Your task to perform on an android device: toggle translation in the chrome app Image 0: 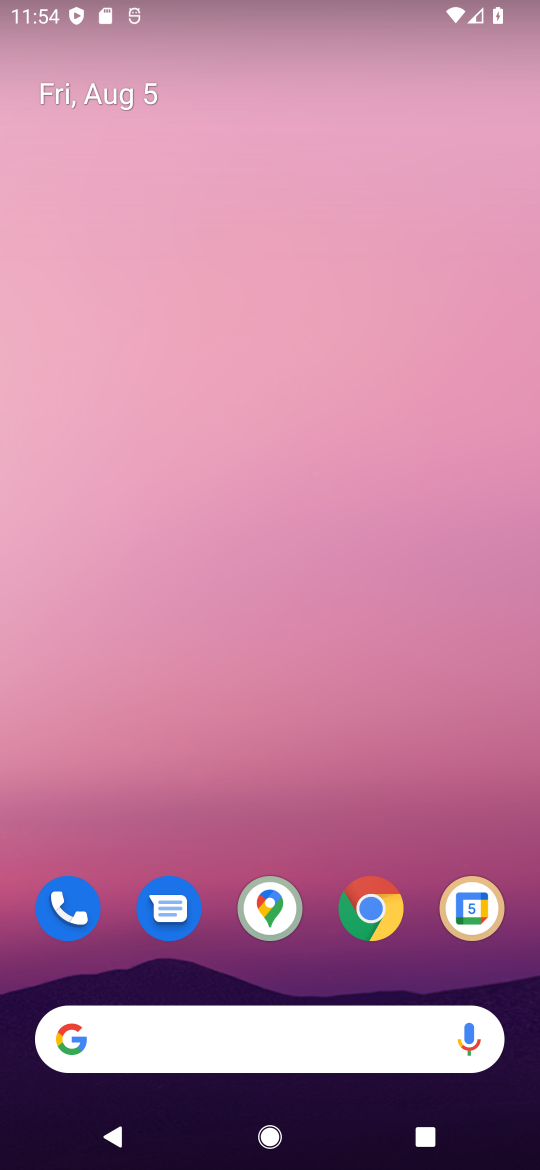
Step 0: drag from (427, 854) to (472, 297)
Your task to perform on an android device: toggle translation in the chrome app Image 1: 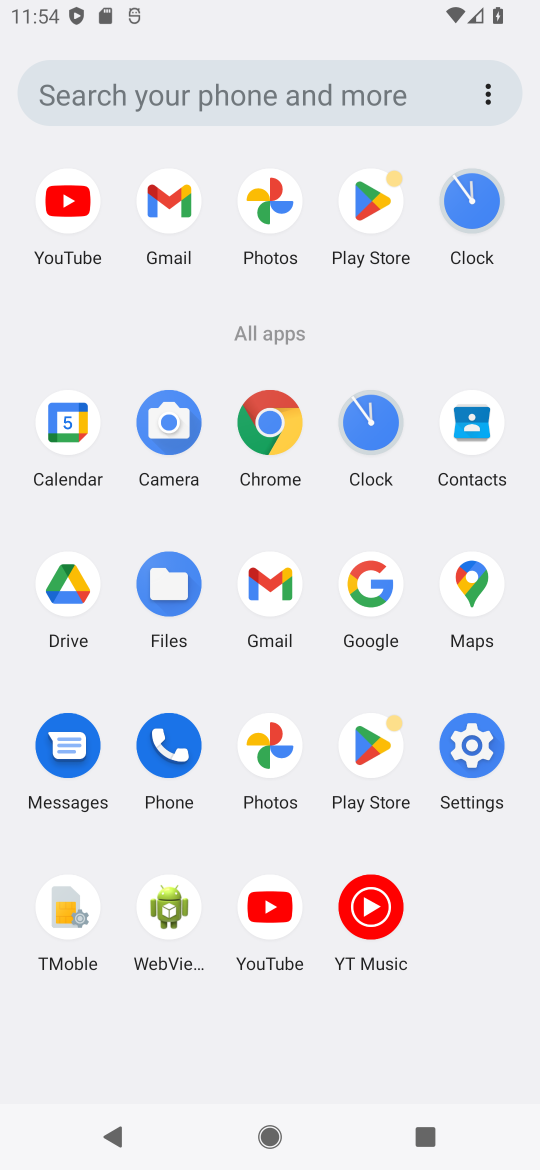
Step 1: click (284, 434)
Your task to perform on an android device: toggle translation in the chrome app Image 2: 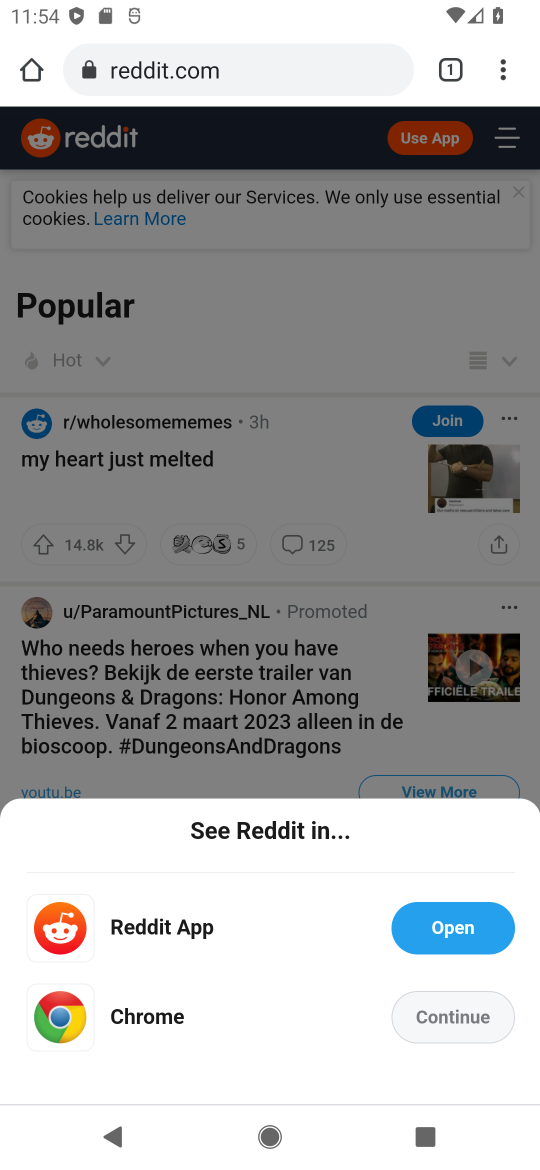
Step 2: drag from (499, 59) to (332, 801)
Your task to perform on an android device: toggle translation in the chrome app Image 3: 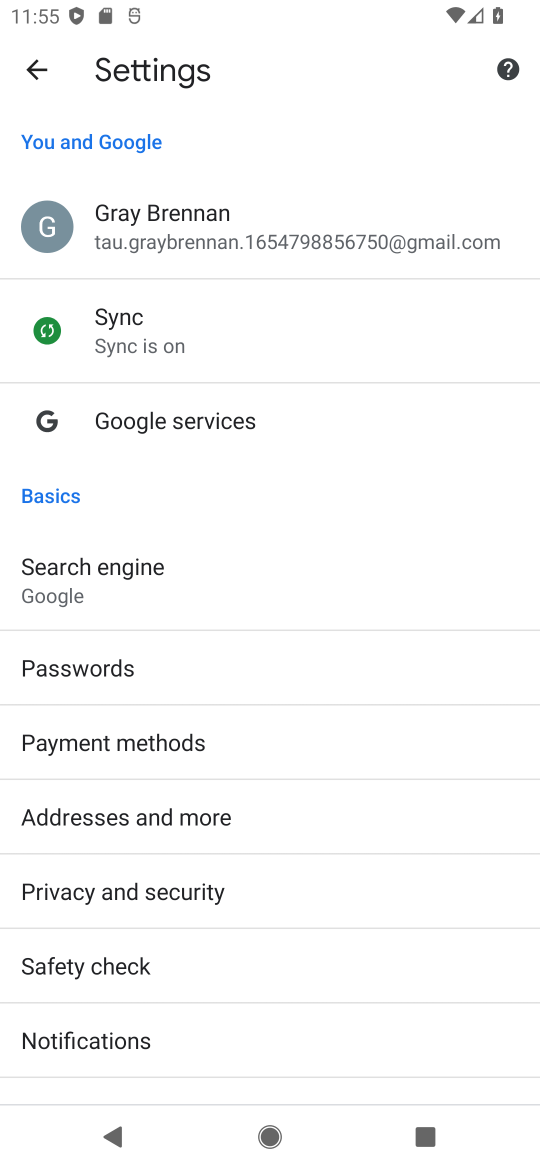
Step 3: drag from (367, 1038) to (497, 299)
Your task to perform on an android device: toggle translation in the chrome app Image 4: 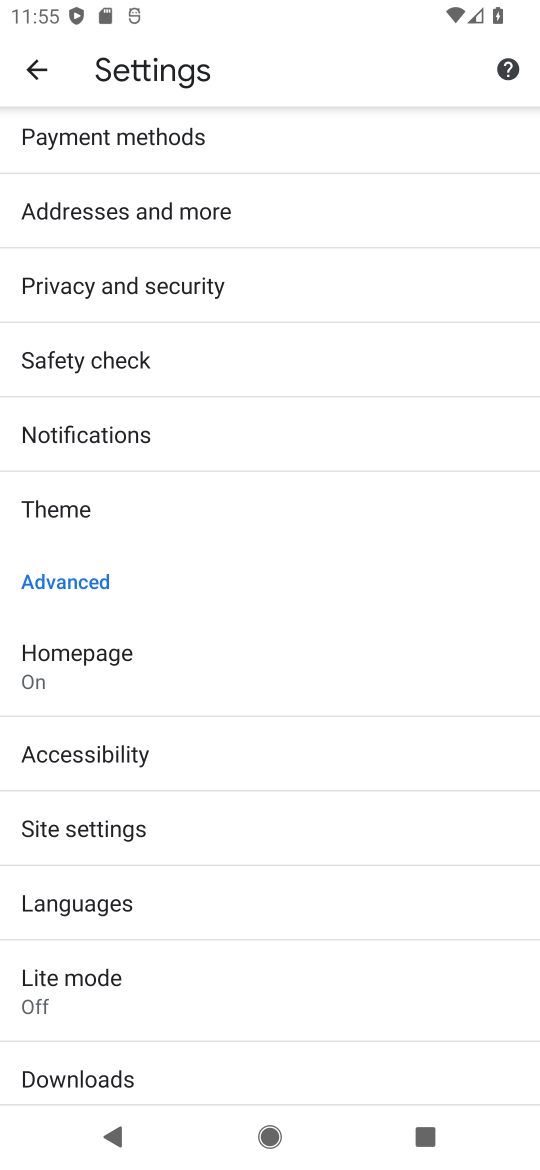
Step 4: click (133, 899)
Your task to perform on an android device: toggle translation in the chrome app Image 5: 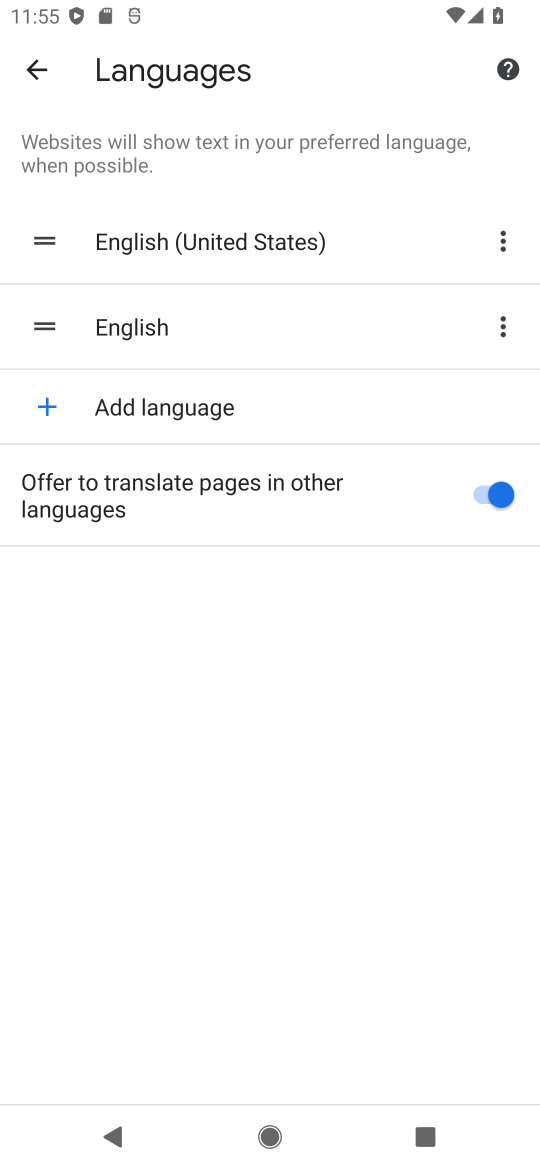
Step 5: click (497, 480)
Your task to perform on an android device: toggle translation in the chrome app Image 6: 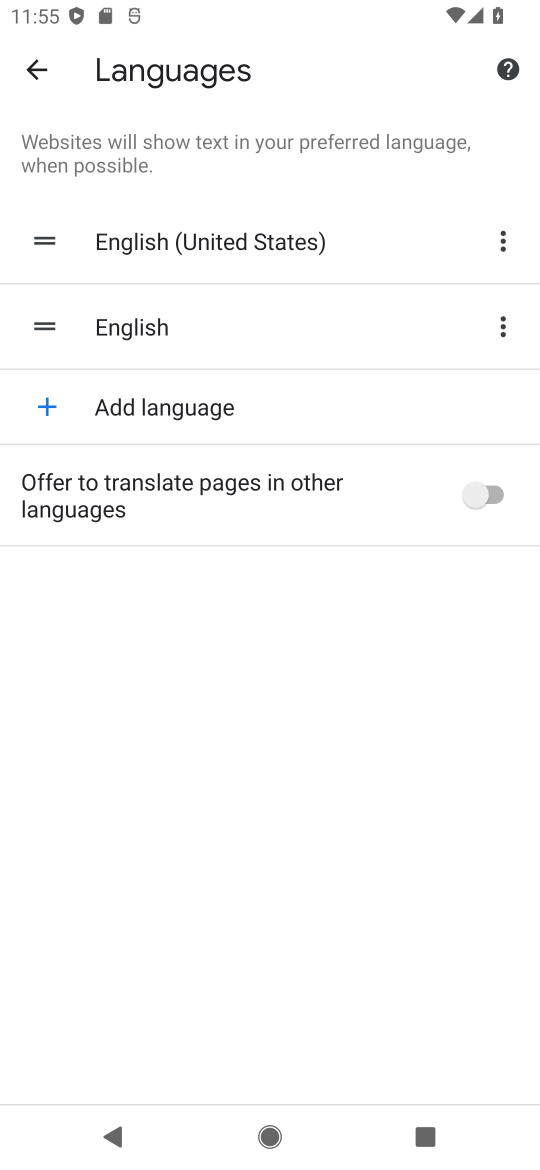
Step 6: task complete